Your task to perform on an android device: Go to display settings Image 0: 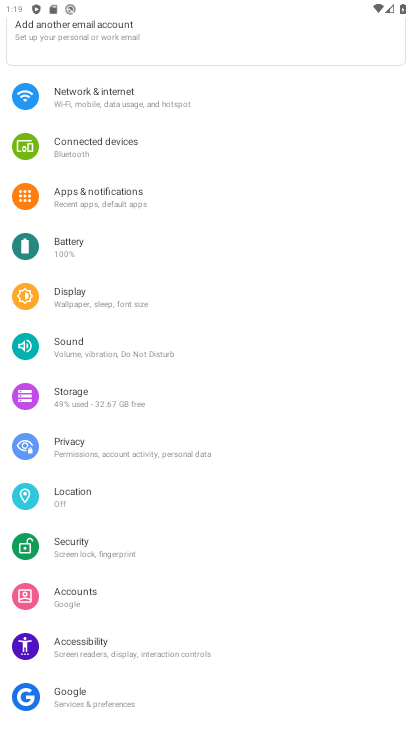
Step 0: click (96, 292)
Your task to perform on an android device: Go to display settings Image 1: 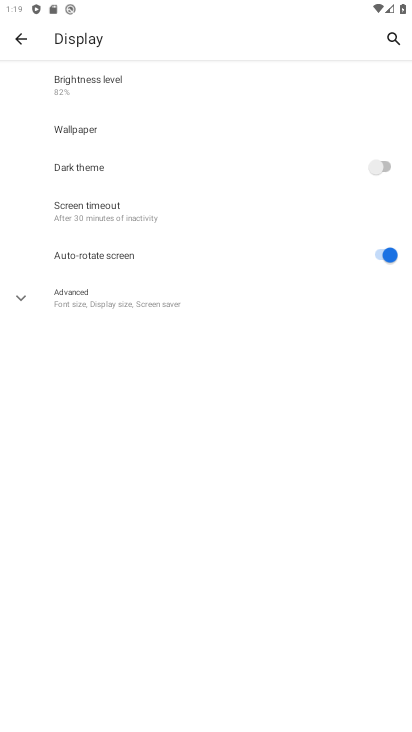
Step 1: task complete